Your task to perform on an android device: turn on improve location accuracy Image 0: 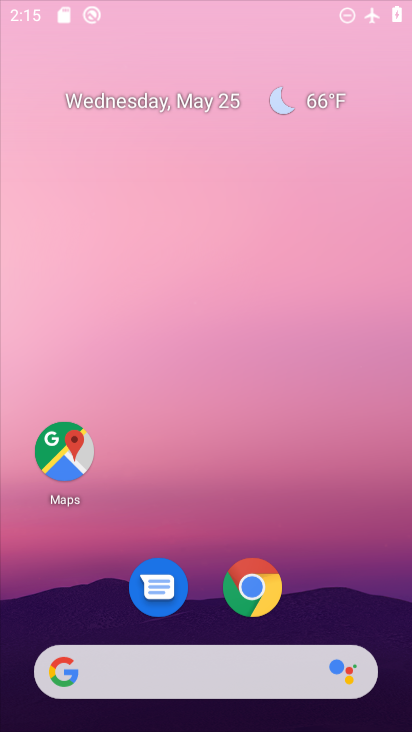
Step 0: drag from (360, 149) to (336, 118)
Your task to perform on an android device: turn on improve location accuracy Image 1: 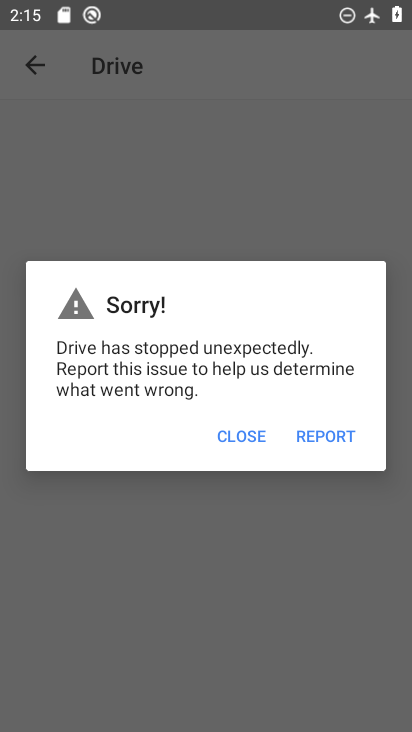
Step 1: press home button
Your task to perform on an android device: turn on improve location accuracy Image 2: 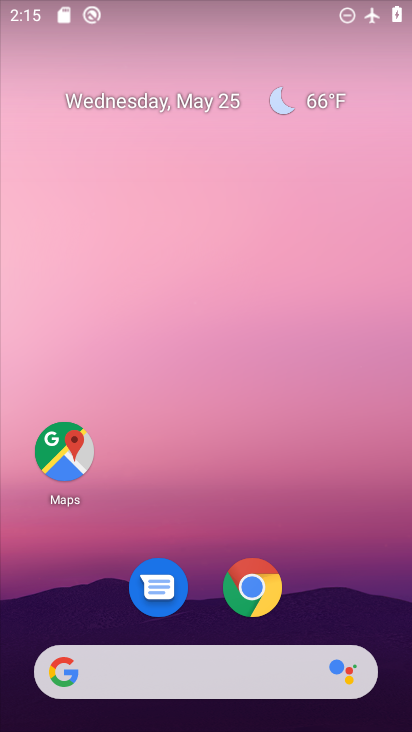
Step 2: drag from (363, 603) to (359, 101)
Your task to perform on an android device: turn on improve location accuracy Image 3: 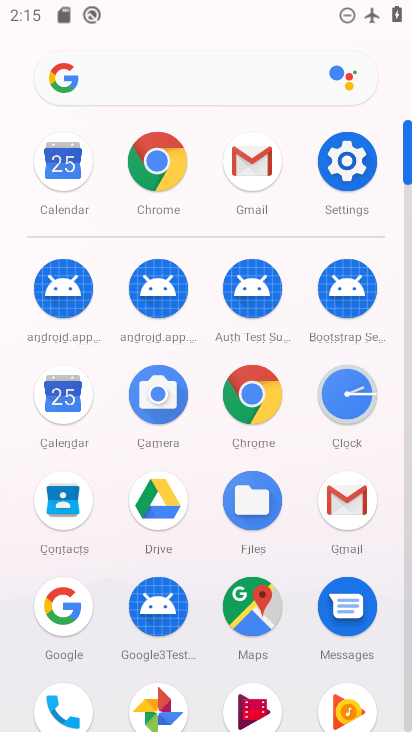
Step 3: click (352, 177)
Your task to perform on an android device: turn on improve location accuracy Image 4: 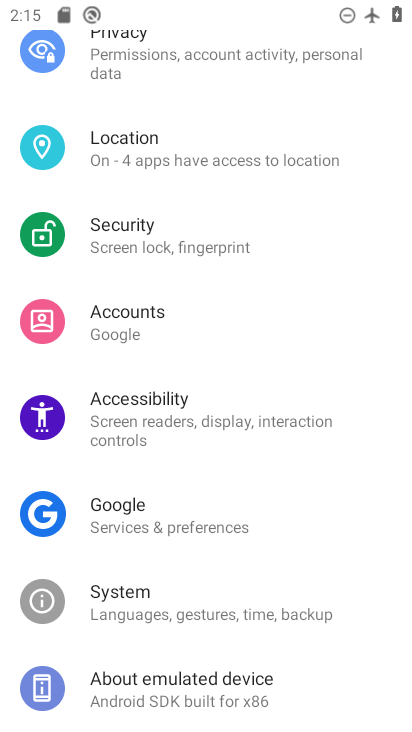
Step 4: drag from (355, 593) to (358, 404)
Your task to perform on an android device: turn on improve location accuracy Image 5: 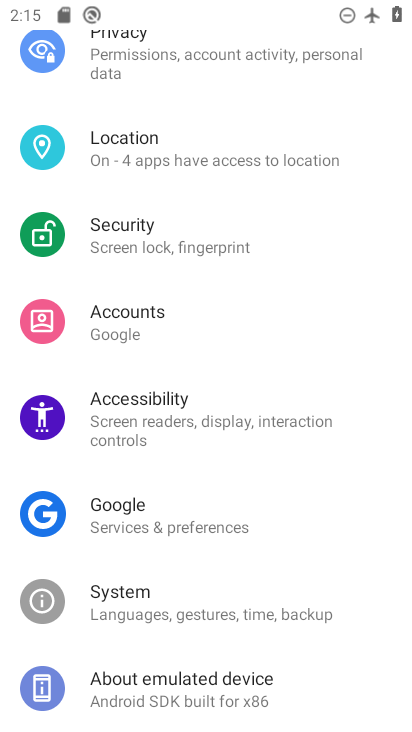
Step 5: drag from (354, 607) to (344, 455)
Your task to perform on an android device: turn on improve location accuracy Image 6: 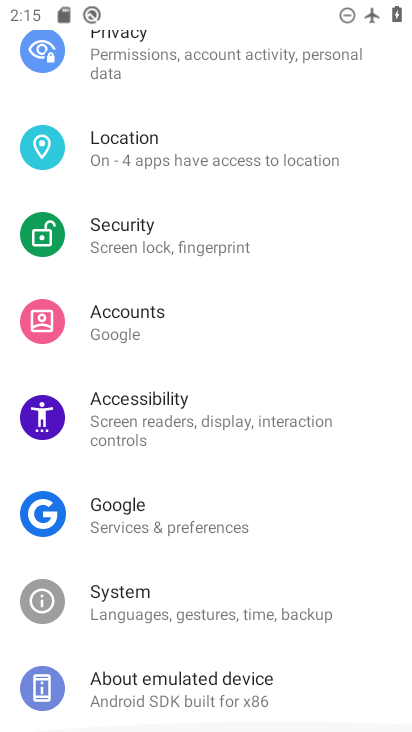
Step 6: drag from (334, 327) to (339, 428)
Your task to perform on an android device: turn on improve location accuracy Image 7: 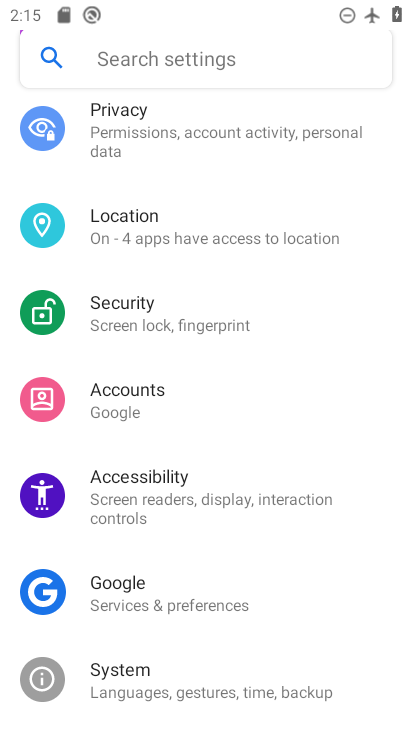
Step 7: drag from (335, 290) to (348, 422)
Your task to perform on an android device: turn on improve location accuracy Image 8: 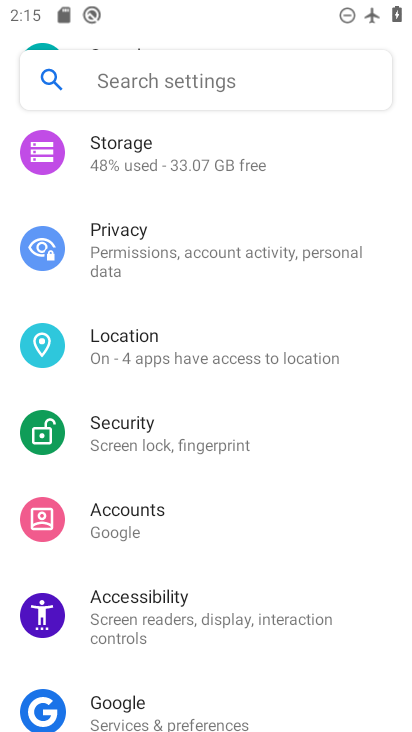
Step 8: drag from (346, 315) to (361, 480)
Your task to perform on an android device: turn on improve location accuracy Image 9: 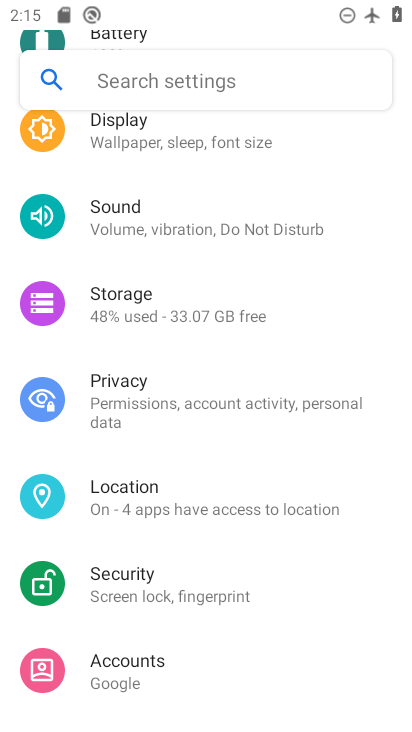
Step 9: drag from (348, 292) to (354, 422)
Your task to perform on an android device: turn on improve location accuracy Image 10: 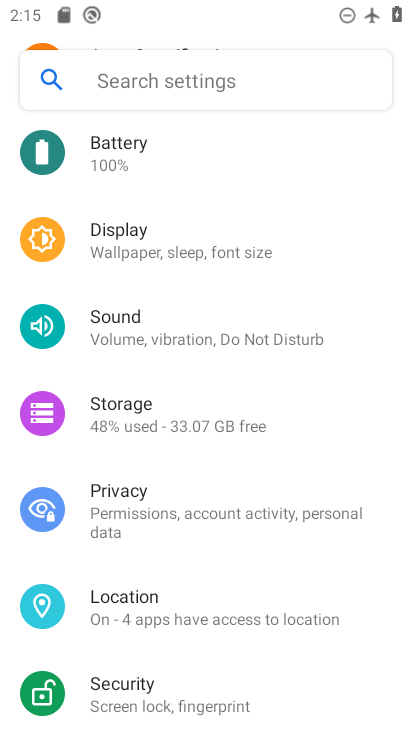
Step 10: drag from (346, 233) to (345, 410)
Your task to perform on an android device: turn on improve location accuracy Image 11: 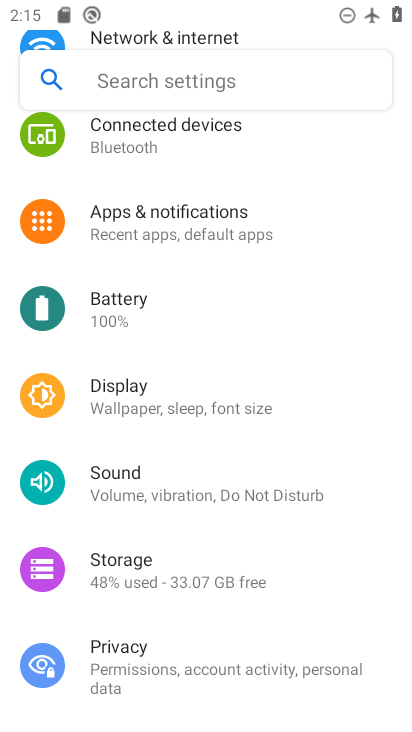
Step 11: drag from (334, 246) to (346, 403)
Your task to perform on an android device: turn on improve location accuracy Image 12: 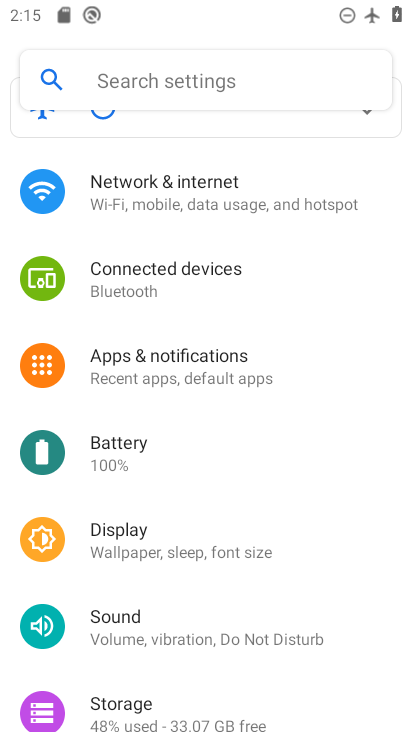
Step 12: drag from (346, 479) to (351, 380)
Your task to perform on an android device: turn on improve location accuracy Image 13: 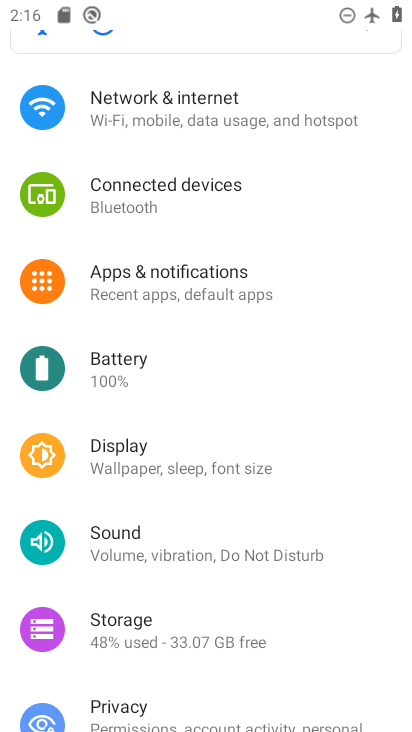
Step 13: drag from (354, 532) to (355, 418)
Your task to perform on an android device: turn on improve location accuracy Image 14: 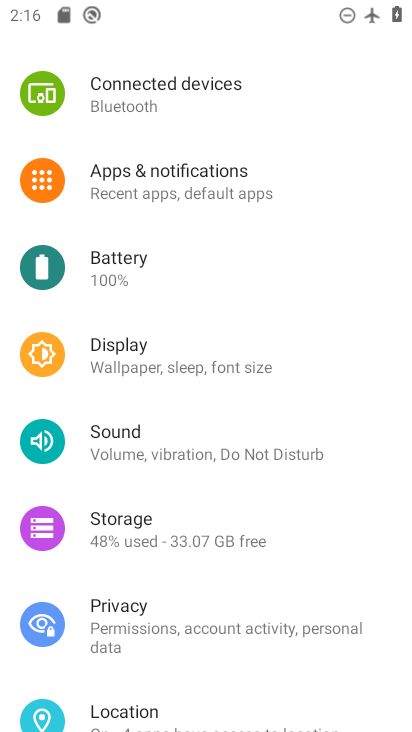
Step 14: drag from (330, 577) to (334, 441)
Your task to perform on an android device: turn on improve location accuracy Image 15: 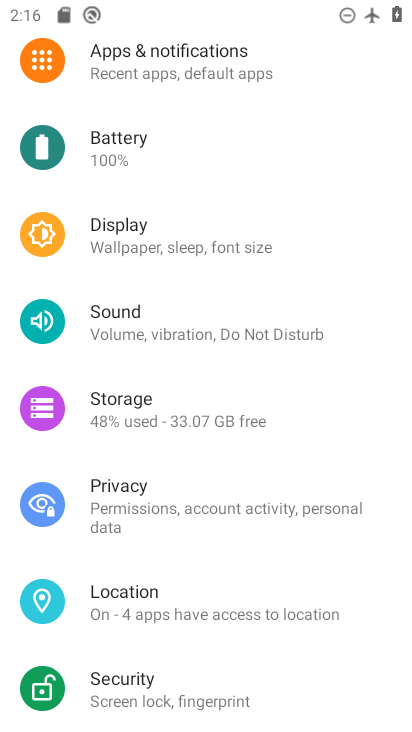
Step 15: click (285, 610)
Your task to perform on an android device: turn on improve location accuracy Image 16: 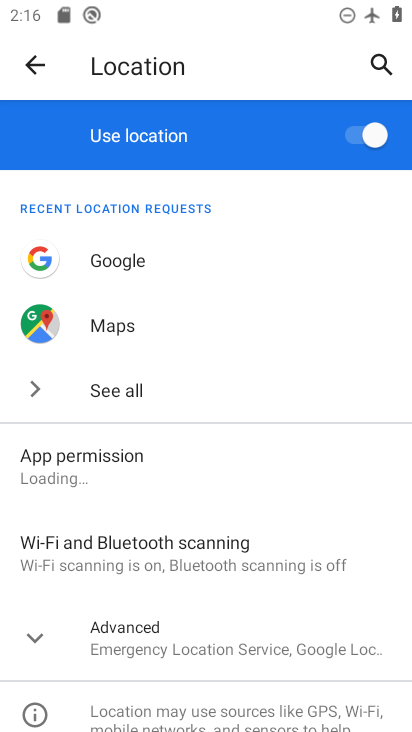
Step 16: drag from (267, 574) to (284, 440)
Your task to perform on an android device: turn on improve location accuracy Image 17: 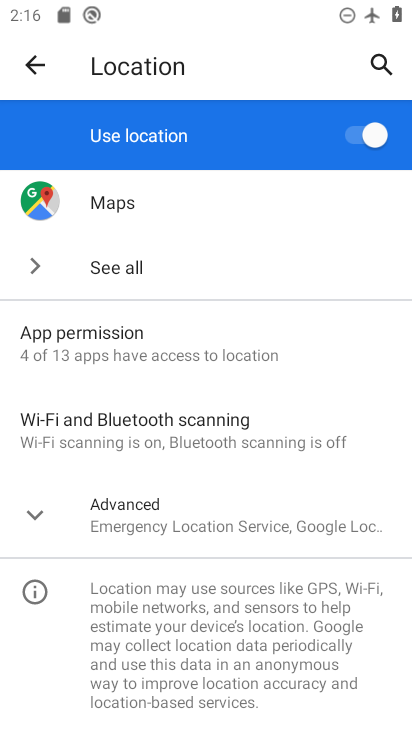
Step 17: click (258, 532)
Your task to perform on an android device: turn on improve location accuracy Image 18: 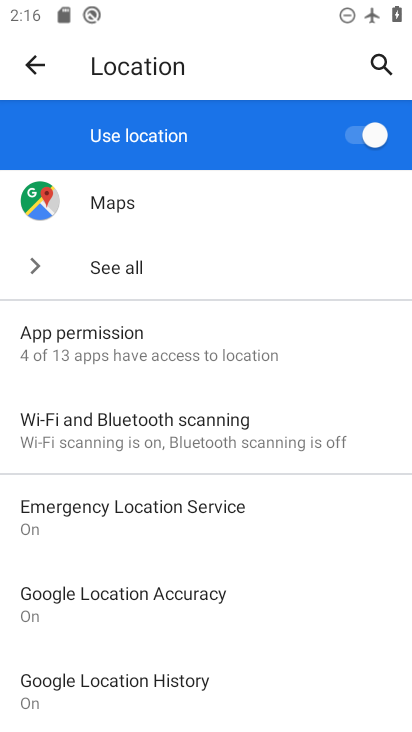
Step 18: drag from (265, 610) to (265, 503)
Your task to perform on an android device: turn on improve location accuracy Image 19: 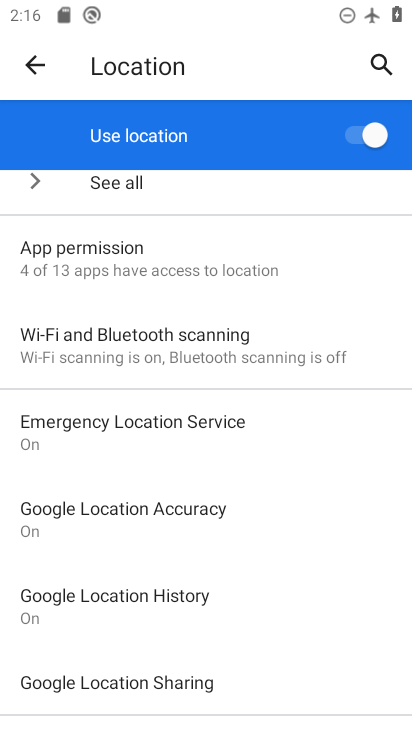
Step 19: click (125, 511)
Your task to perform on an android device: turn on improve location accuracy Image 20: 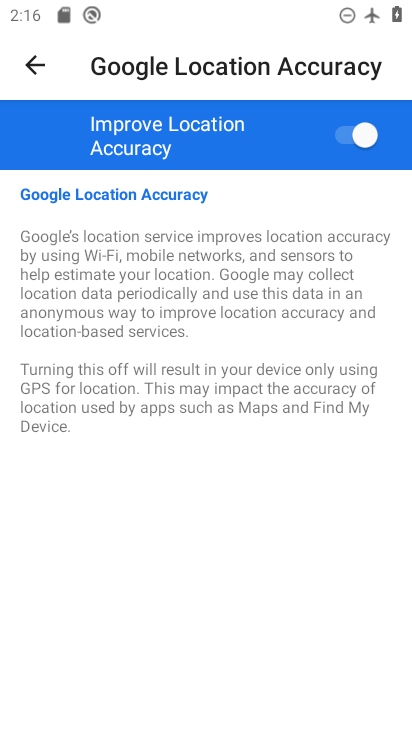
Step 20: task complete